Your task to perform on an android device: Show me popular videos on Youtube Image 0: 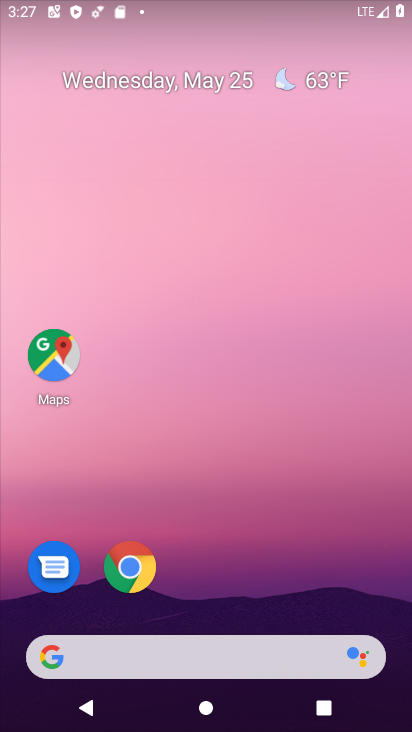
Step 0: drag from (274, 592) to (264, 73)
Your task to perform on an android device: Show me popular videos on Youtube Image 1: 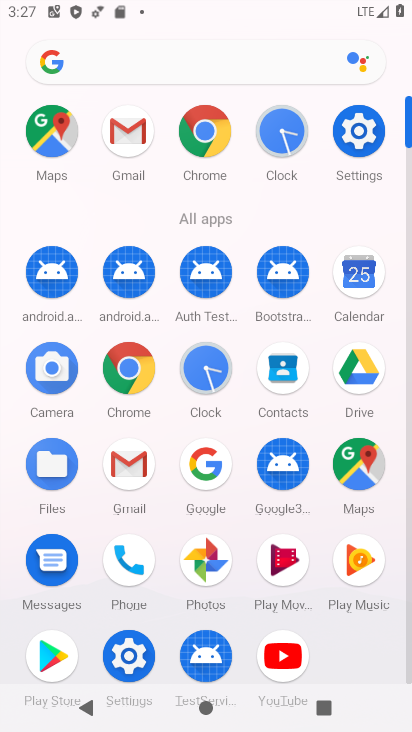
Step 1: click (283, 651)
Your task to perform on an android device: Show me popular videos on Youtube Image 2: 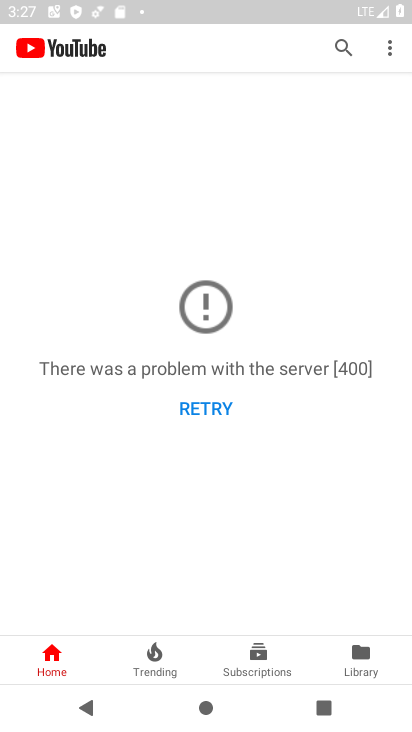
Step 2: task complete